Your task to perform on an android device: show emergency info Image 0: 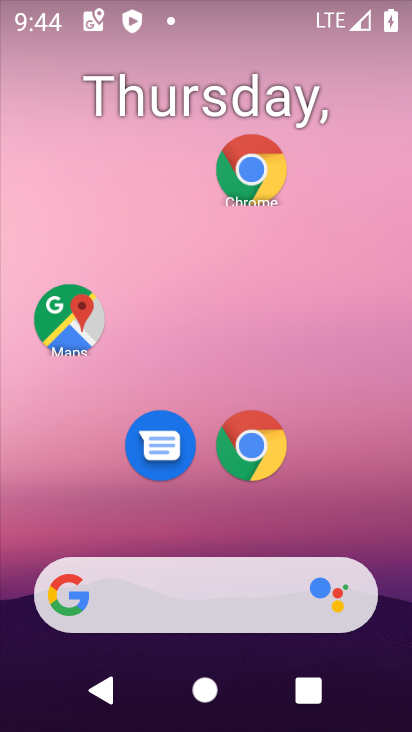
Step 0: drag from (169, 526) to (146, 0)
Your task to perform on an android device: show emergency info Image 1: 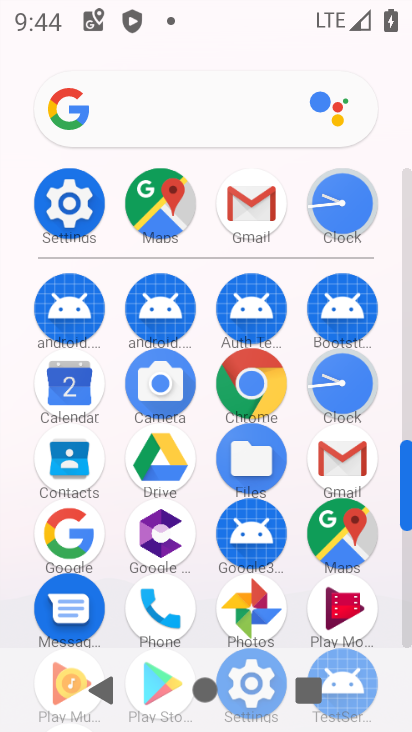
Step 1: click (50, 203)
Your task to perform on an android device: show emergency info Image 2: 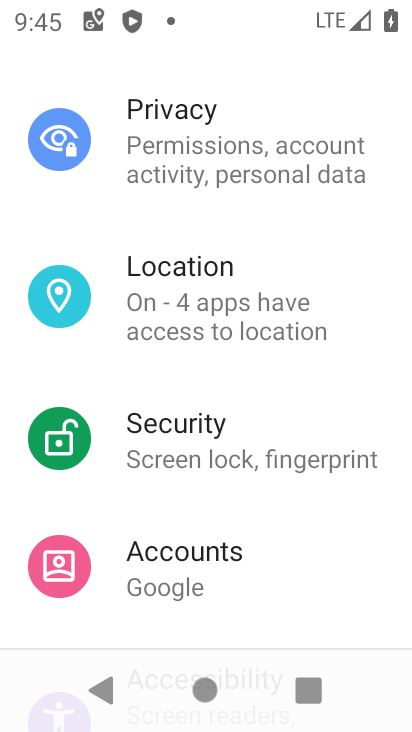
Step 2: drag from (255, 502) to (278, 3)
Your task to perform on an android device: show emergency info Image 3: 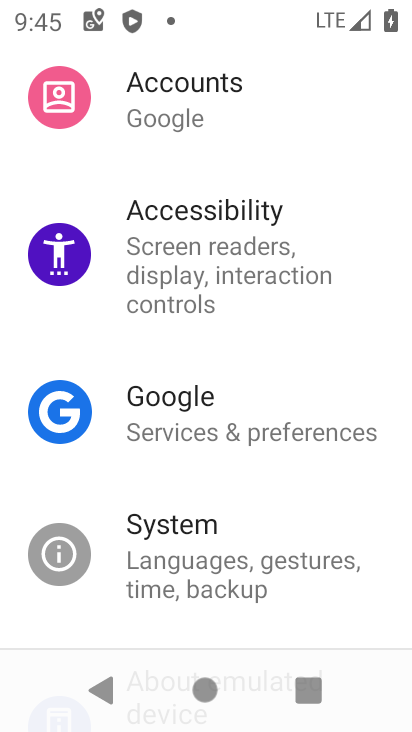
Step 3: drag from (252, 535) to (189, 1)
Your task to perform on an android device: show emergency info Image 4: 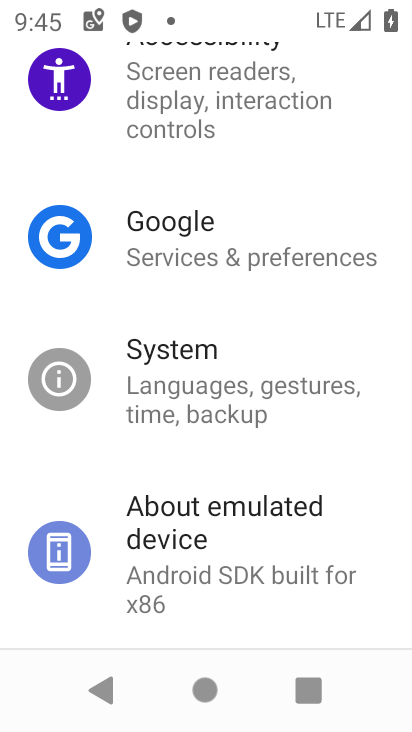
Step 4: click (141, 545)
Your task to perform on an android device: show emergency info Image 5: 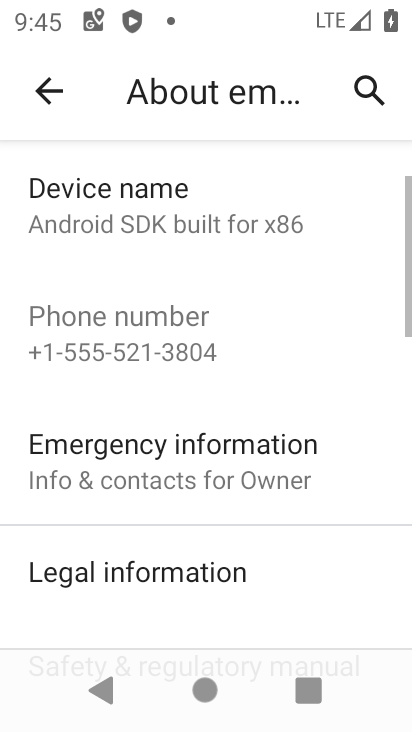
Step 5: click (190, 465)
Your task to perform on an android device: show emergency info Image 6: 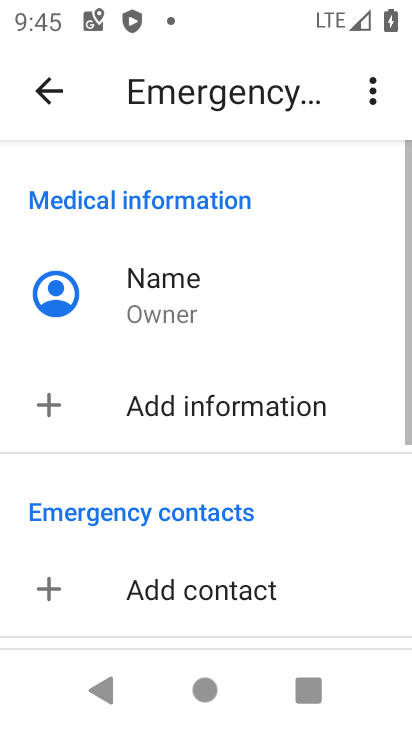
Step 6: task complete